Your task to perform on an android device: toggle notification dots Image 0: 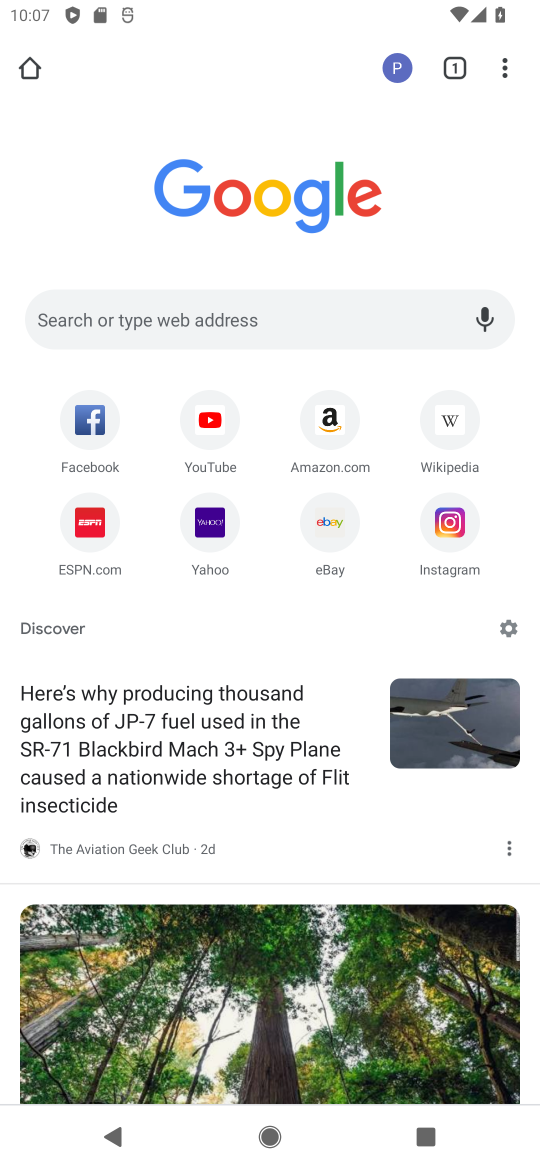
Step 0: press home button
Your task to perform on an android device: toggle notification dots Image 1: 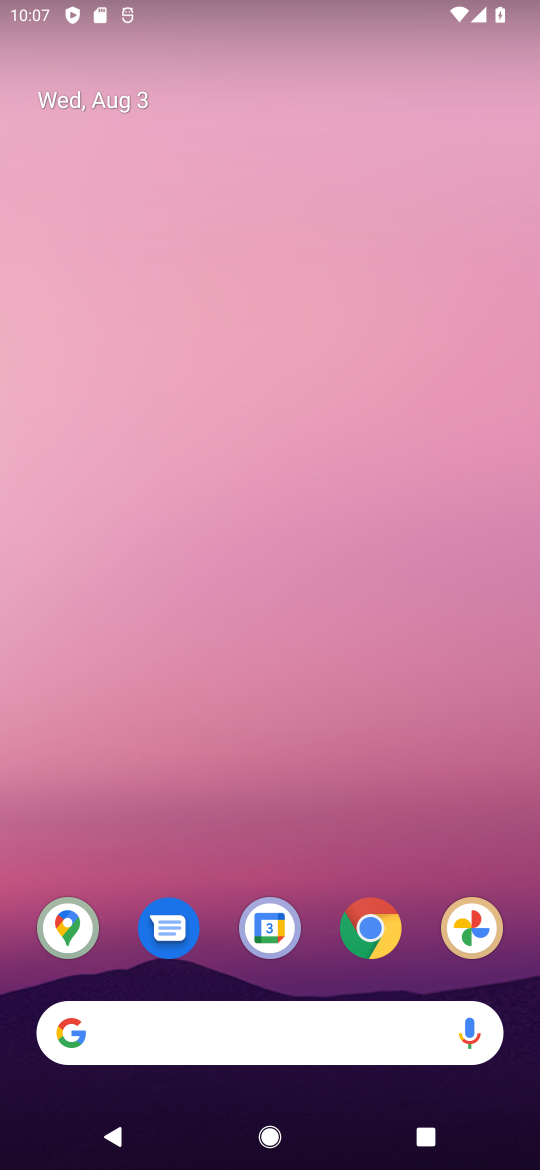
Step 1: drag from (394, 848) to (266, 1)
Your task to perform on an android device: toggle notification dots Image 2: 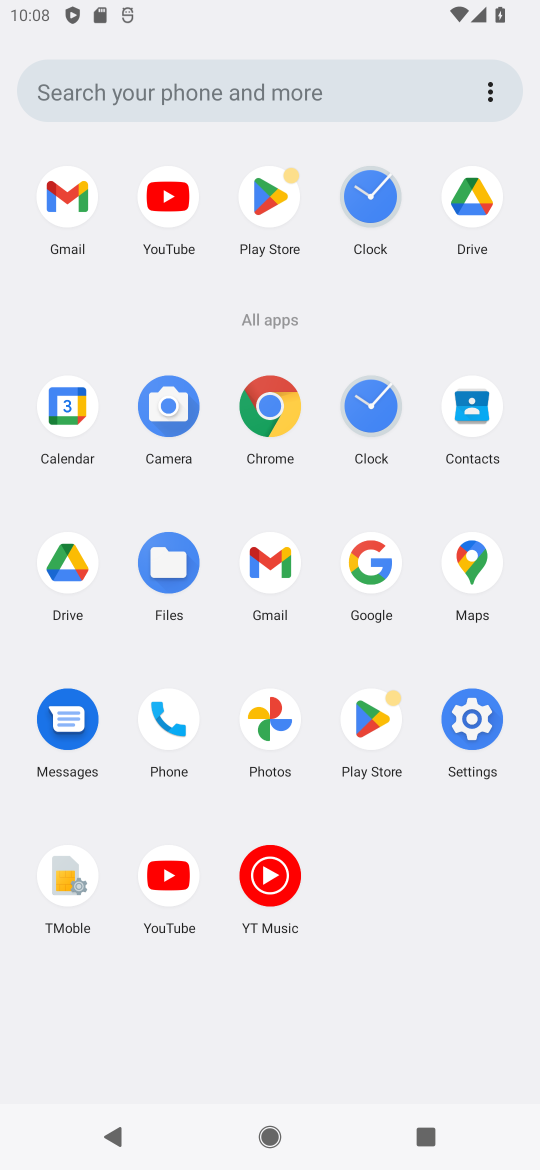
Step 2: click (477, 712)
Your task to perform on an android device: toggle notification dots Image 3: 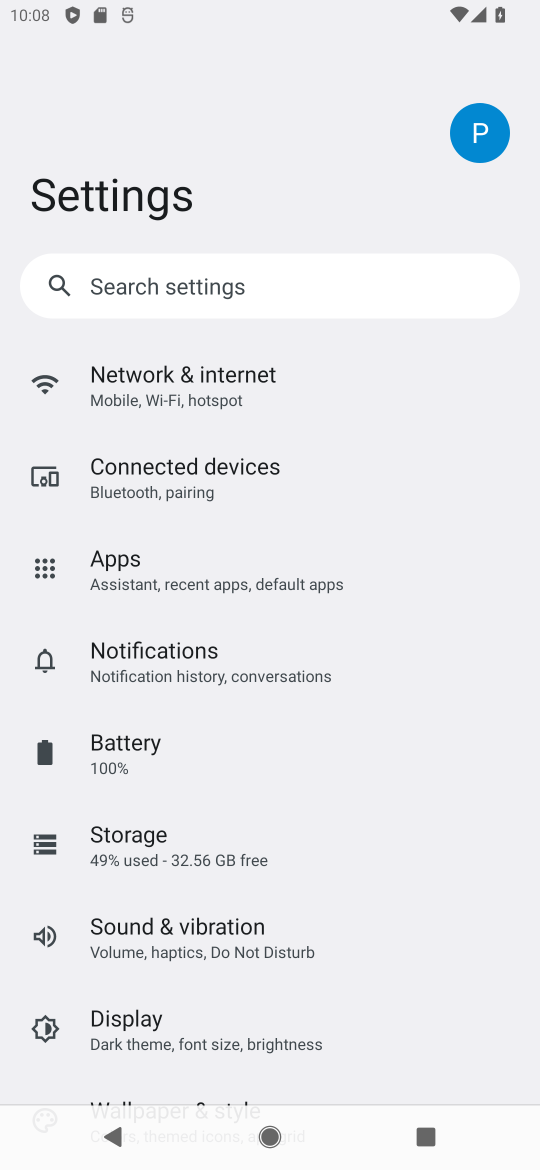
Step 3: click (229, 651)
Your task to perform on an android device: toggle notification dots Image 4: 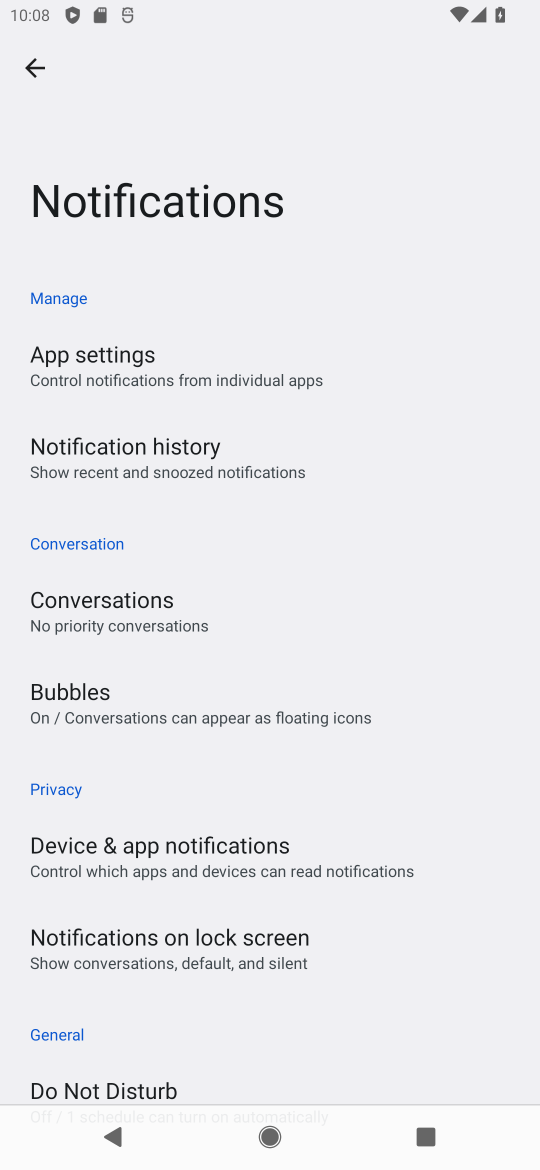
Step 4: drag from (323, 1054) to (285, 318)
Your task to perform on an android device: toggle notification dots Image 5: 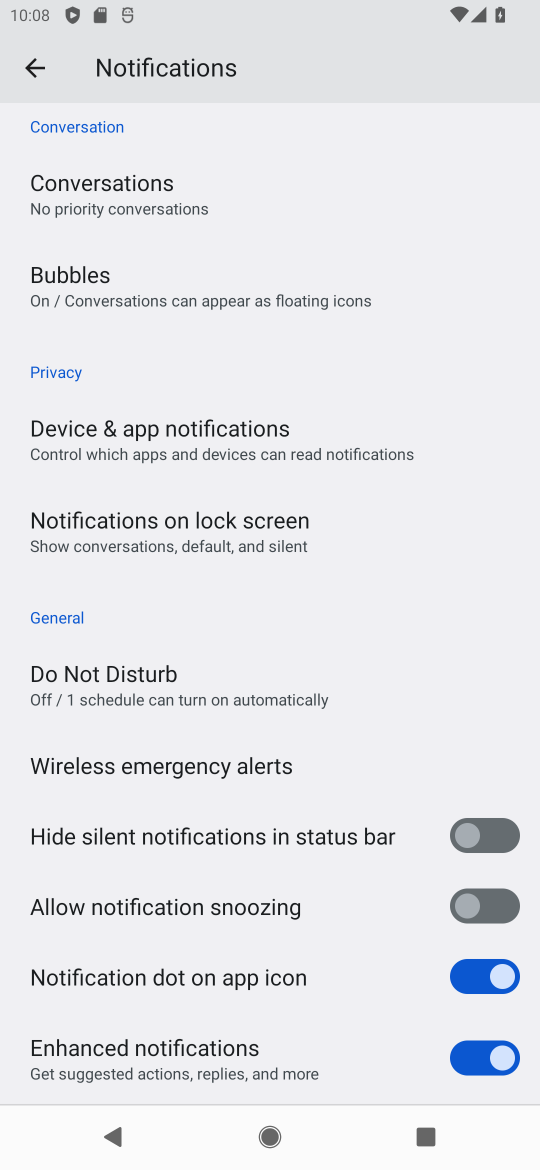
Step 5: click (483, 979)
Your task to perform on an android device: toggle notification dots Image 6: 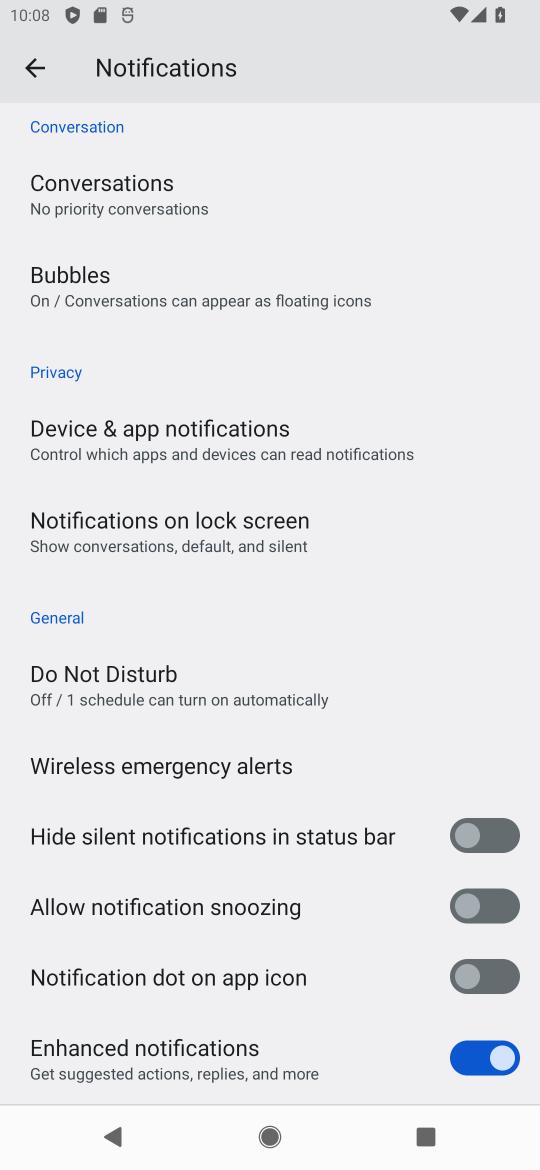
Step 6: task complete